Your task to perform on an android device: change text size in settings app Image 0: 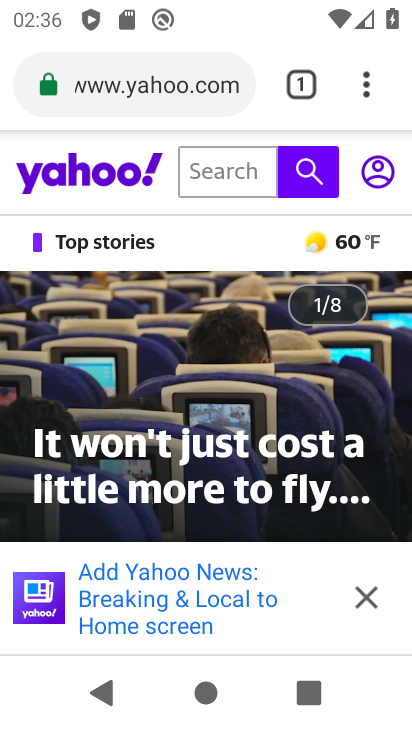
Step 0: press home button
Your task to perform on an android device: change text size in settings app Image 1: 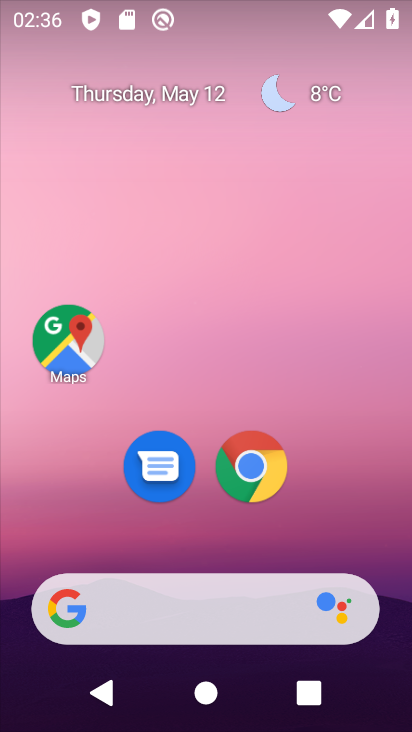
Step 1: drag from (363, 525) to (240, 32)
Your task to perform on an android device: change text size in settings app Image 2: 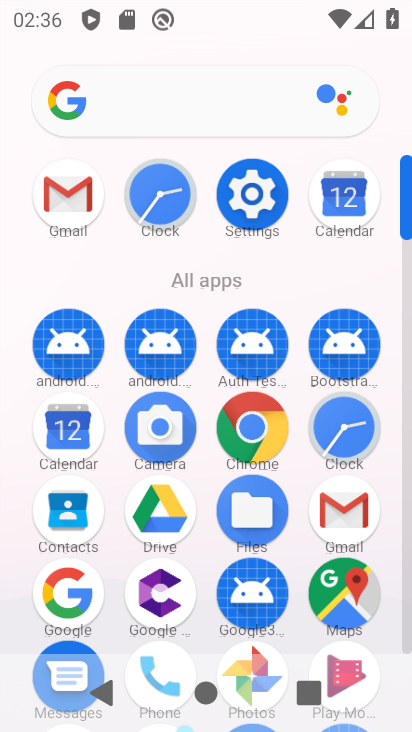
Step 2: click (247, 186)
Your task to perform on an android device: change text size in settings app Image 3: 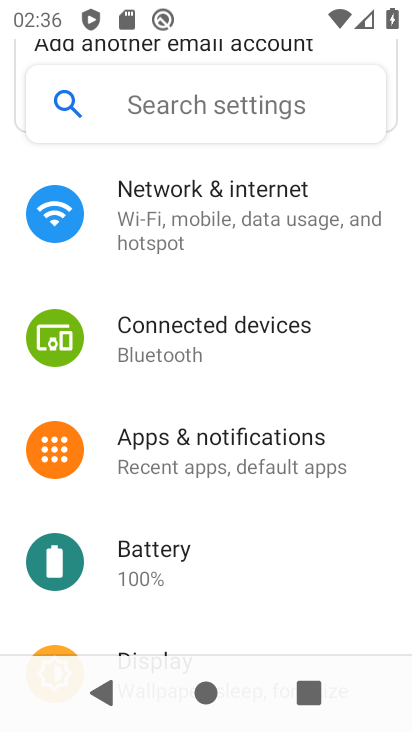
Step 3: drag from (181, 596) to (203, 313)
Your task to perform on an android device: change text size in settings app Image 4: 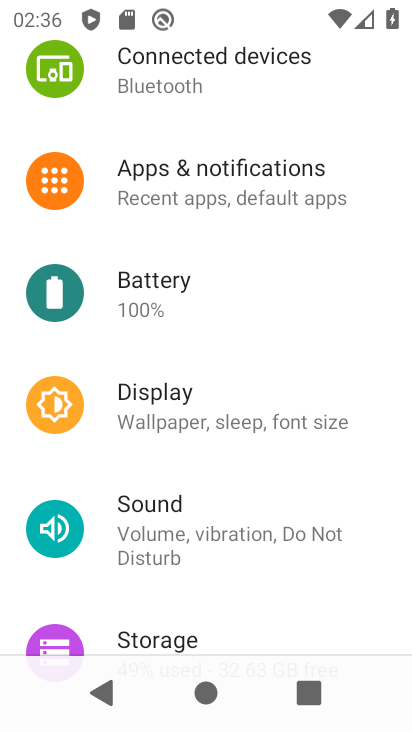
Step 4: click (137, 430)
Your task to perform on an android device: change text size in settings app Image 5: 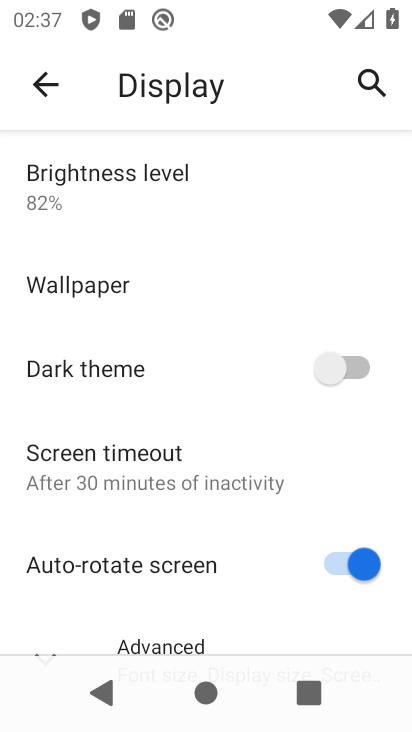
Step 5: click (174, 628)
Your task to perform on an android device: change text size in settings app Image 6: 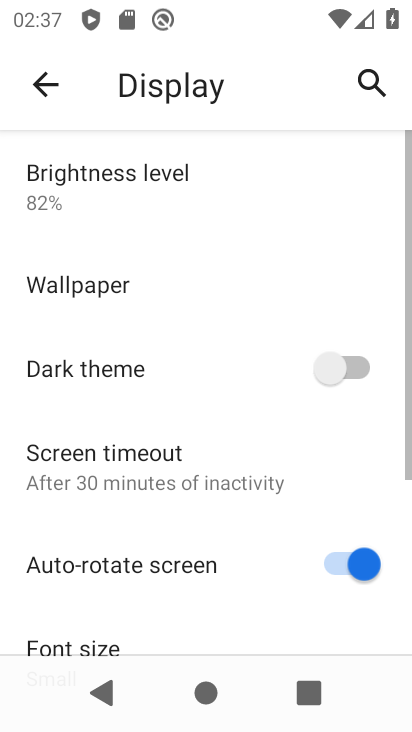
Step 6: drag from (172, 626) to (226, 219)
Your task to perform on an android device: change text size in settings app Image 7: 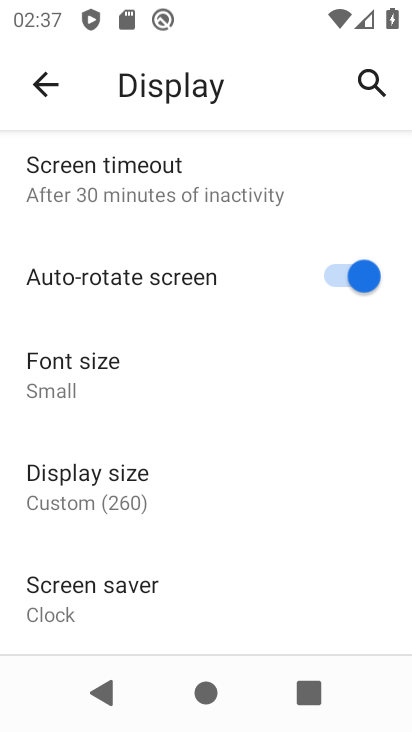
Step 7: click (138, 387)
Your task to perform on an android device: change text size in settings app Image 8: 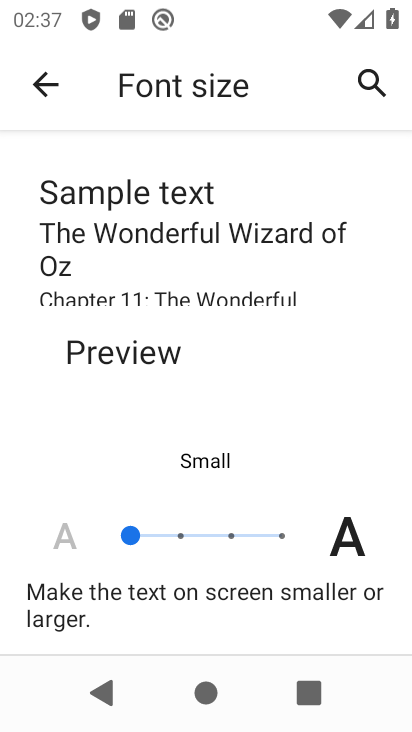
Step 8: task complete